Your task to perform on an android device: Go to calendar. Show me events next week Image 0: 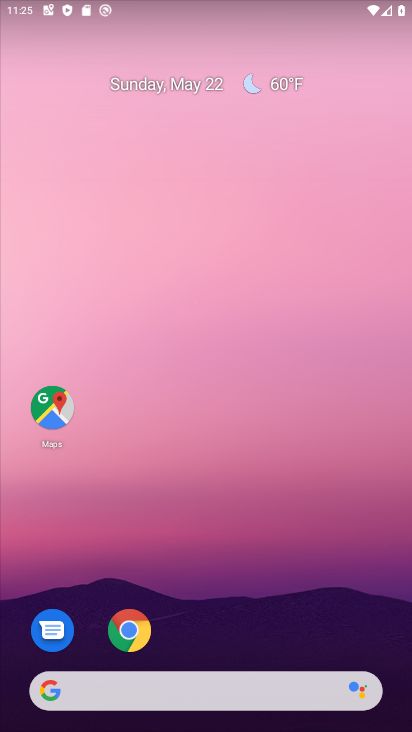
Step 0: drag from (310, 618) to (271, 42)
Your task to perform on an android device: Go to calendar. Show me events next week Image 1: 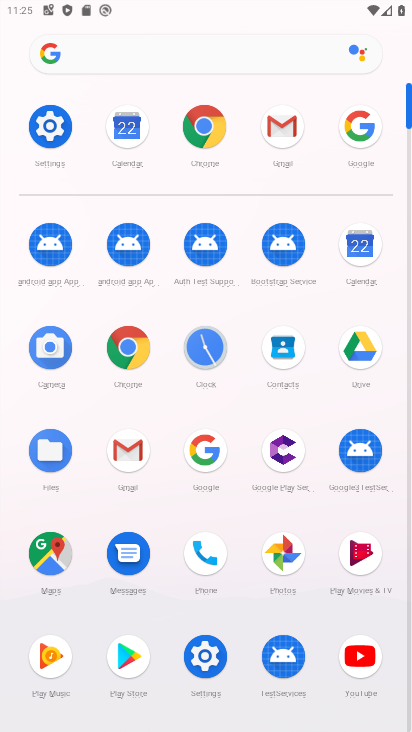
Step 1: click (359, 243)
Your task to perform on an android device: Go to calendar. Show me events next week Image 2: 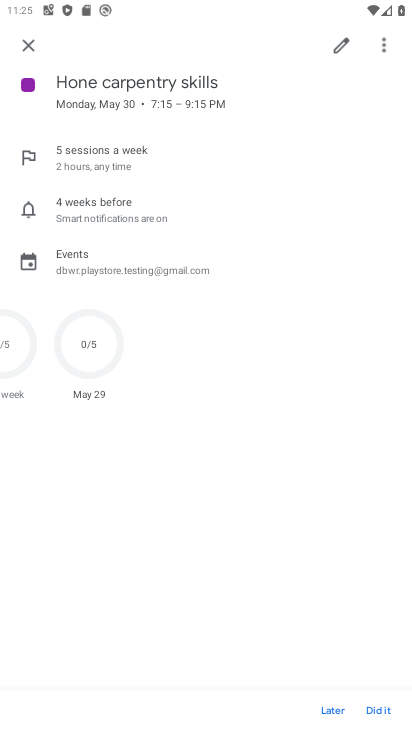
Step 2: task complete